Your task to perform on an android device: Search for sushi restaurants on Maps Image 0: 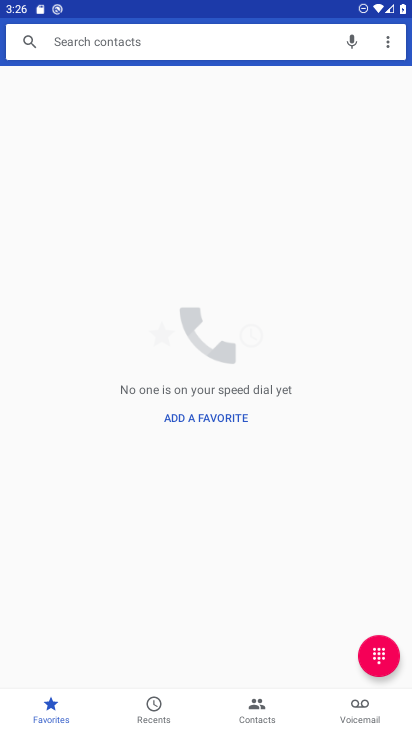
Step 0: press home button
Your task to perform on an android device: Search for sushi restaurants on Maps Image 1: 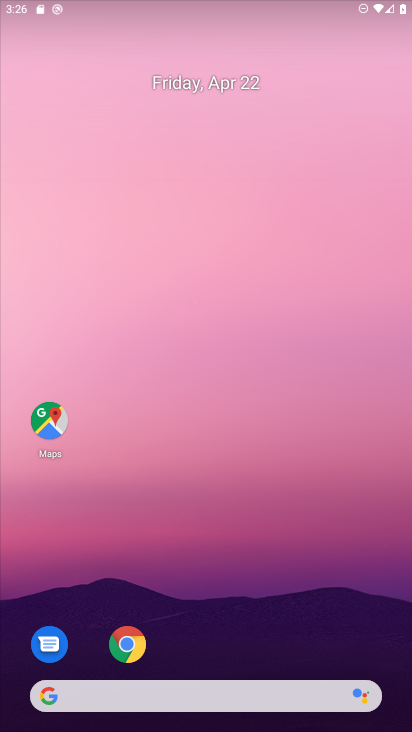
Step 1: click (321, 530)
Your task to perform on an android device: Search for sushi restaurants on Maps Image 2: 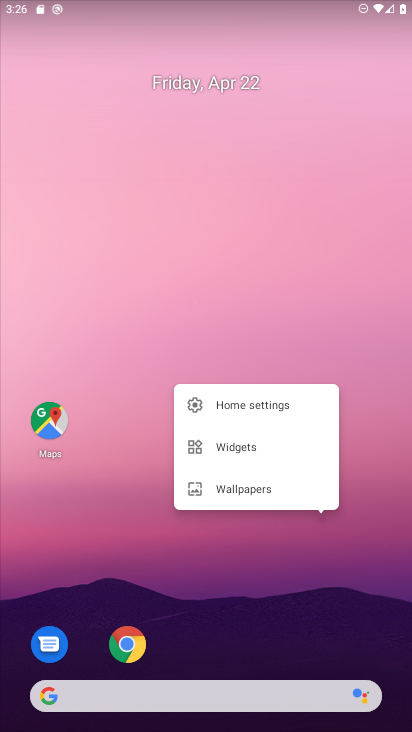
Step 2: drag from (226, 634) to (301, 59)
Your task to perform on an android device: Search for sushi restaurants on Maps Image 3: 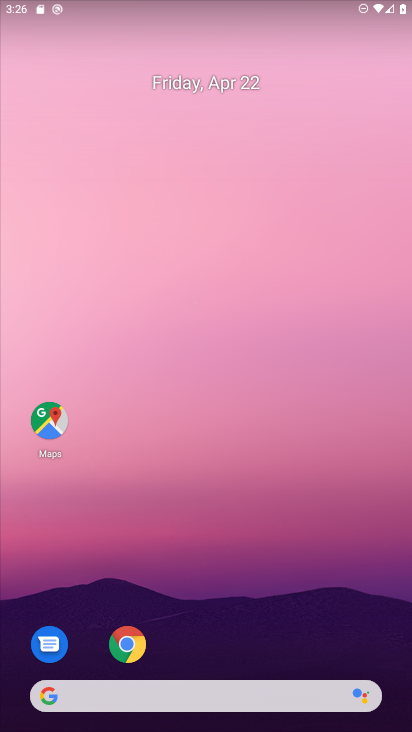
Step 3: drag from (248, 521) to (280, 24)
Your task to perform on an android device: Search for sushi restaurants on Maps Image 4: 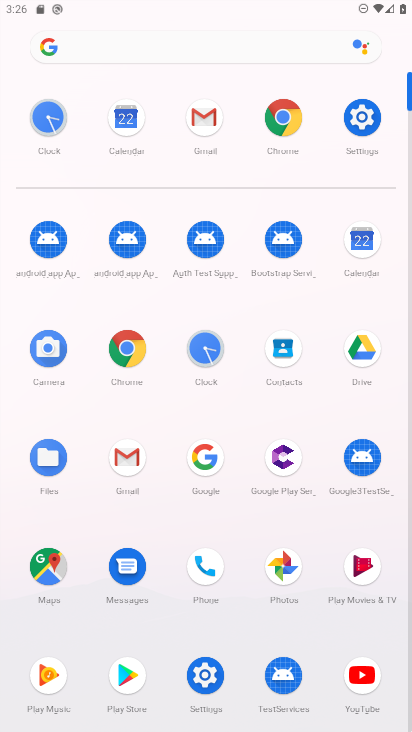
Step 4: click (49, 567)
Your task to perform on an android device: Search for sushi restaurants on Maps Image 5: 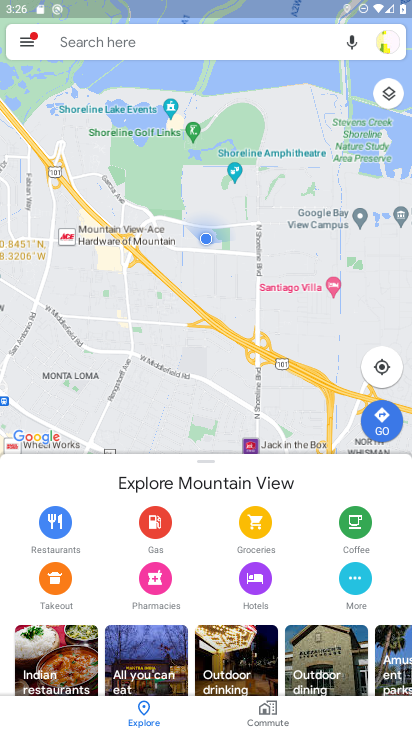
Step 5: click (275, 41)
Your task to perform on an android device: Search for sushi restaurants on Maps Image 6: 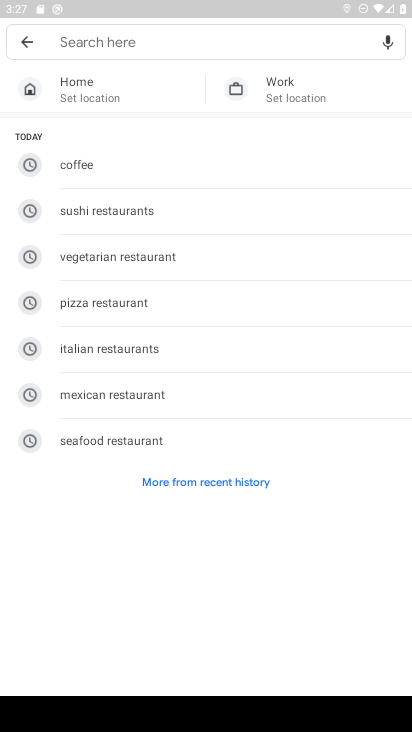
Step 6: click (112, 218)
Your task to perform on an android device: Search for sushi restaurants on Maps Image 7: 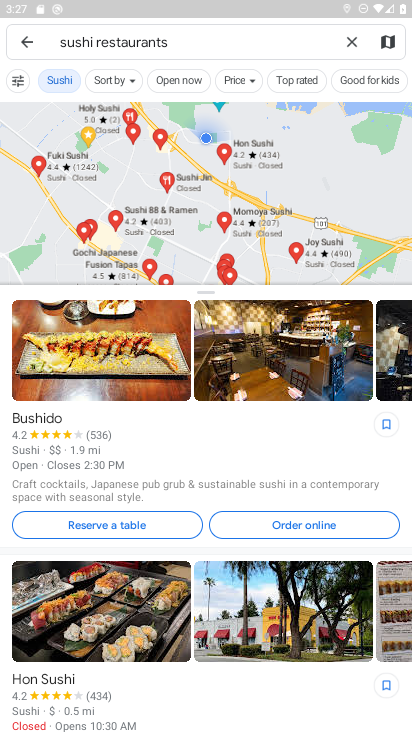
Step 7: task complete